Your task to perform on an android device: read, delete, or share a saved page in the chrome app Image 0: 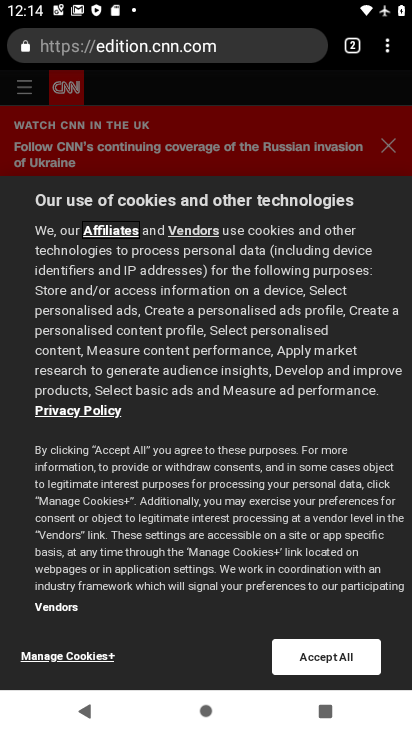
Step 0: drag from (389, 48) to (226, 125)
Your task to perform on an android device: read, delete, or share a saved page in the chrome app Image 1: 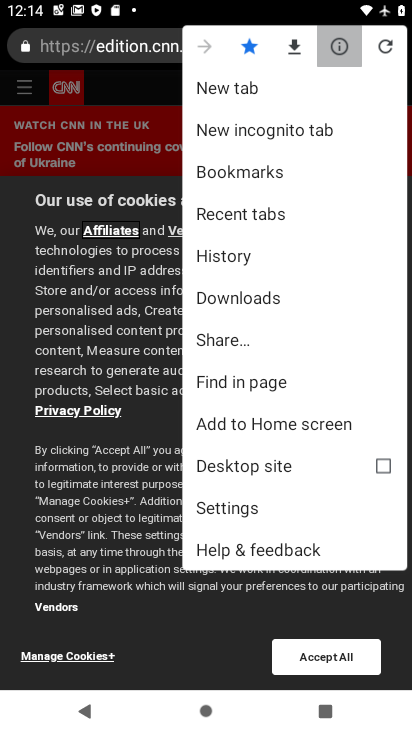
Step 1: drag from (228, 148) to (230, 202)
Your task to perform on an android device: read, delete, or share a saved page in the chrome app Image 2: 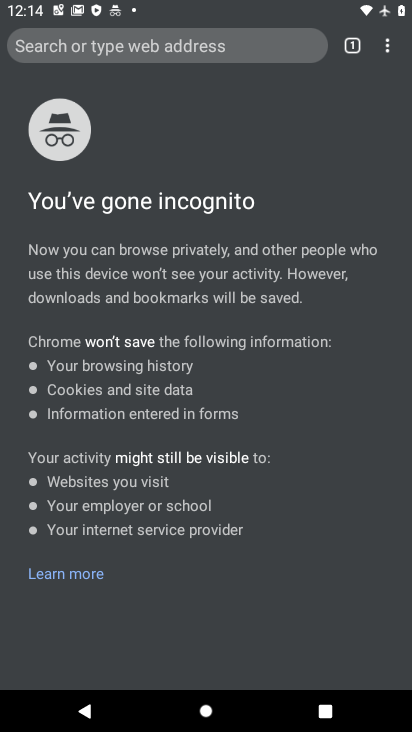
Step 2: press back button
Your task to perform on an android device: read, delete, or share a saved page in the chrome app Image 3: 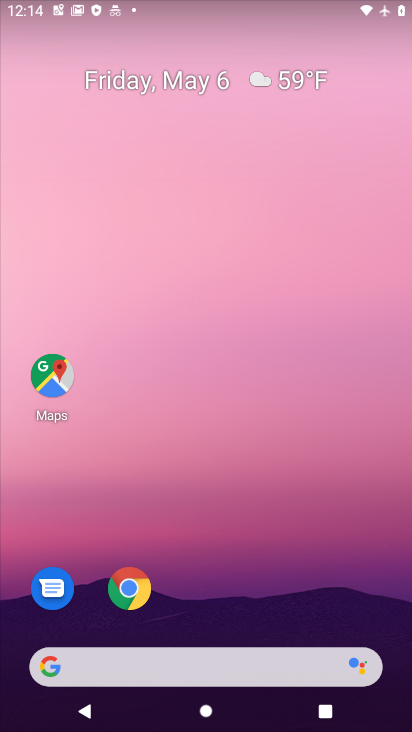
Step 3: click (123, 584)
Your task to perform on an android device: read, delete, or share a saved page in the chrome app Image 4: 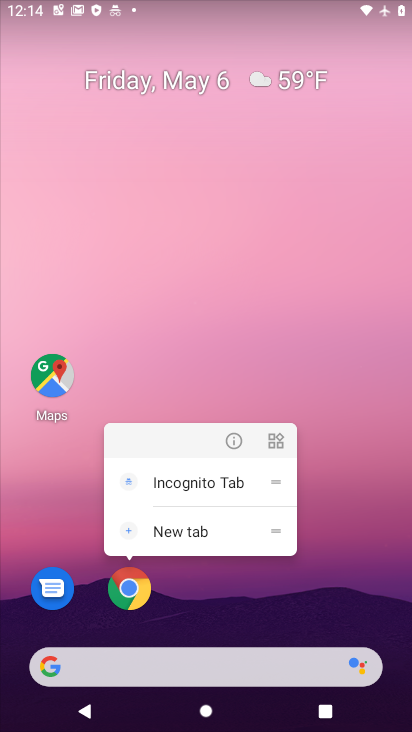
Step 4: click (126, 595)
Your task to perform on an android device: read, delete, or share a saved page in the chrome app Image 5: 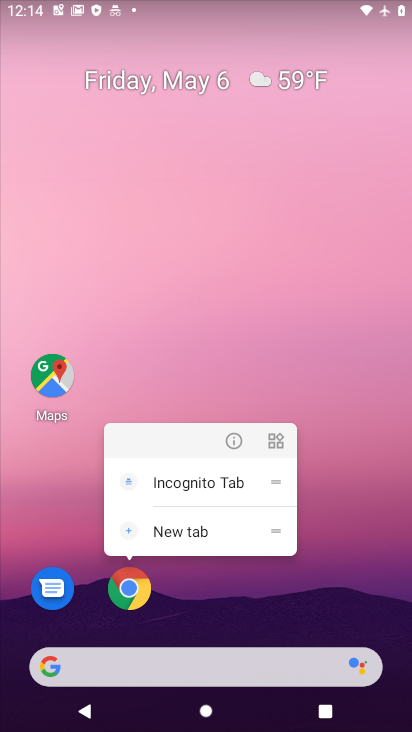
Step 5: click (135, 588)
Your task to perform on an android device: read, delete, or share a saved page in the chrome app Image 6: 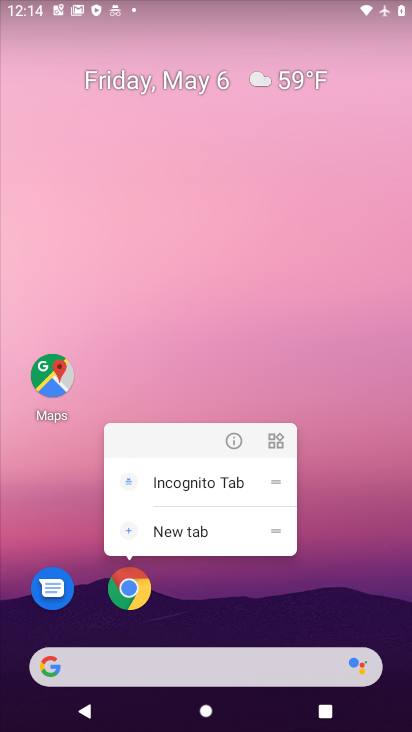
Step 6: click (127, 599)
Your task to perform on an android device: read, delete, or share a saved page in the chrome app Image 7: 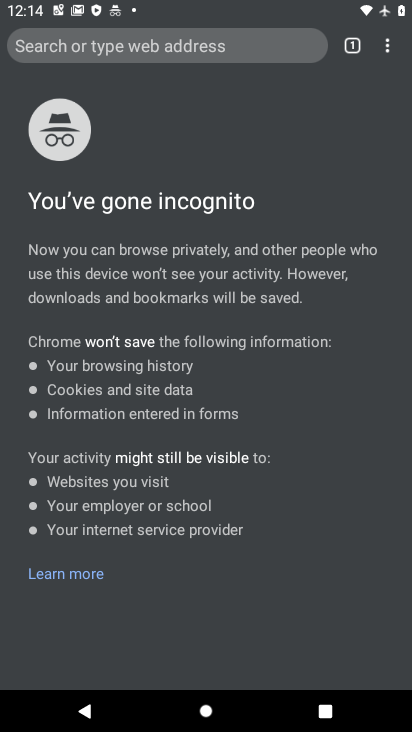
Step 7: drag from (385, 52) to (301, 80)
Your task to perform on an android device: read, delete, or share a saved page in the chrome app Image 8: 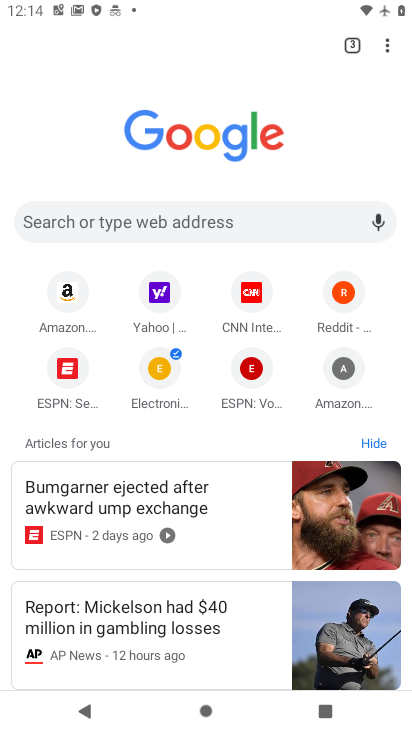
Step 8: drag from (389, 51) to (265, 308)
Your task to perform on an android device: read, delete, or share a saved page in the chrome app Image 9: 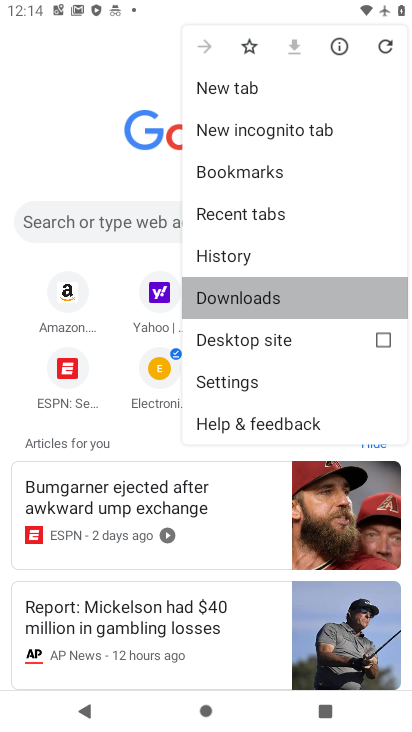
Step 9: click (265, 308)
Your task to perform on an android device: read, delete, or share a saved page in the chrome app Image 10: 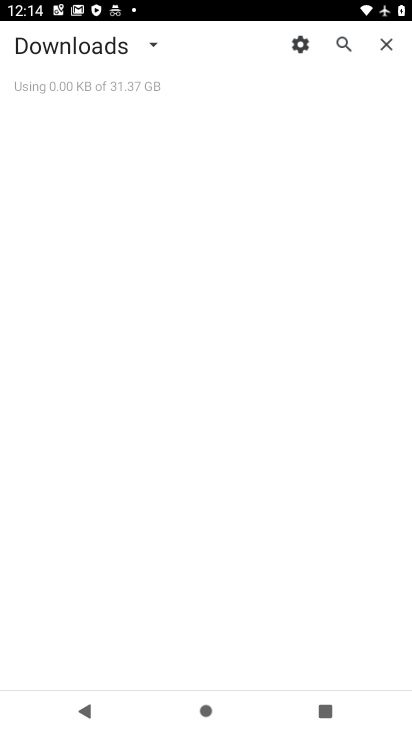
Step 10: click (153, 45)
Your task to perform on an android device: read, delete, or share a saved page in the chrome app Image 11: 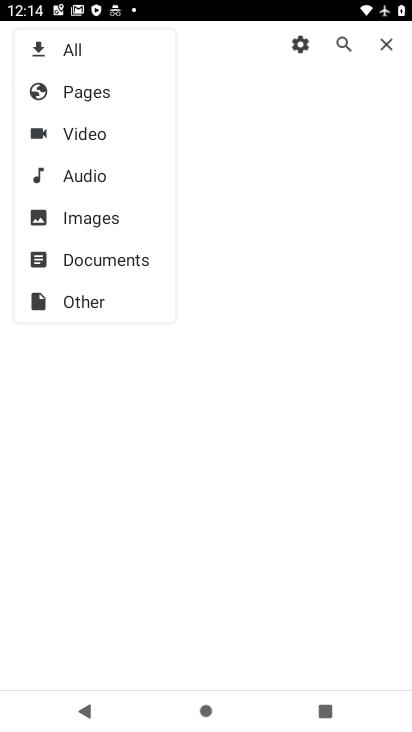
Step 11: click (96, 94)
Your task to perform on an android device: read, delete, or share a saved page in the chrome app Image 12: 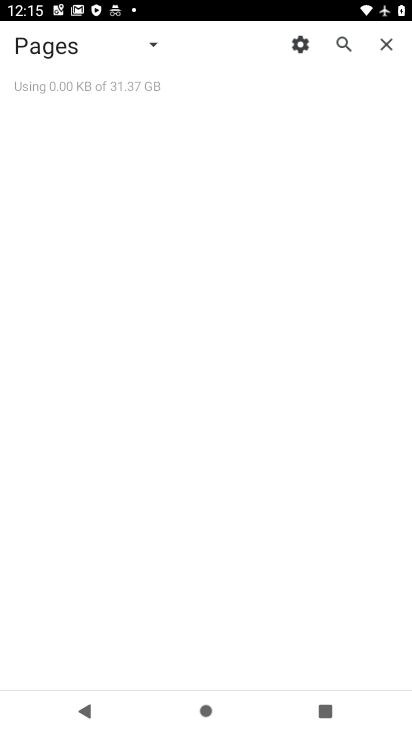
Step 12: task complete